Your task to perform on an android device: Go to accessibility settings Image 0: 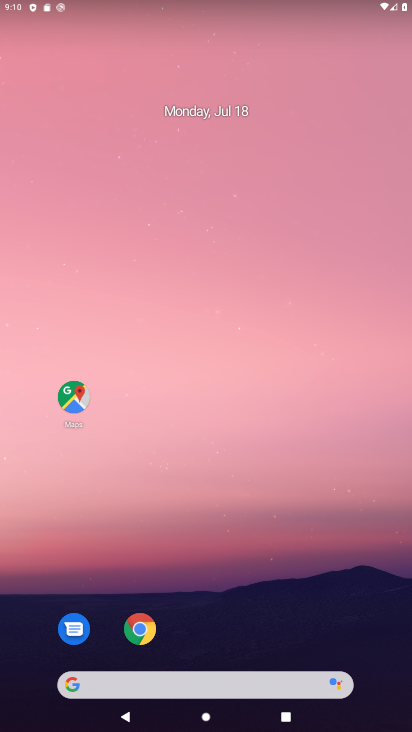
Step 0: drag from (284, 536) to (265, 122)
Your task to perform on an android device: Go to accessibility settings Image 1: 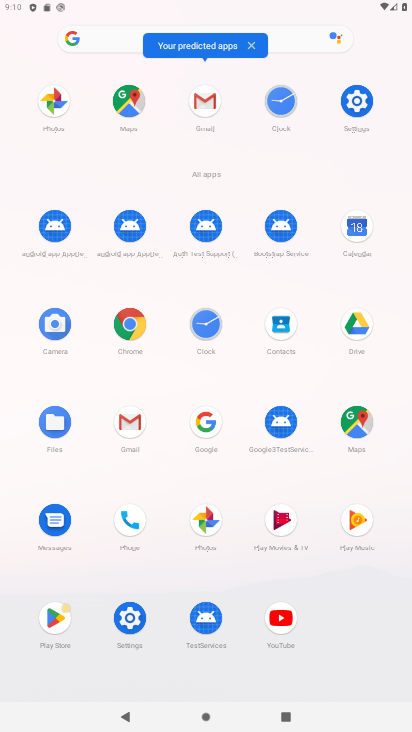
Step 1: click (370, 95)
Your task to perform on an android device: Go to accessibility settings Image 2: 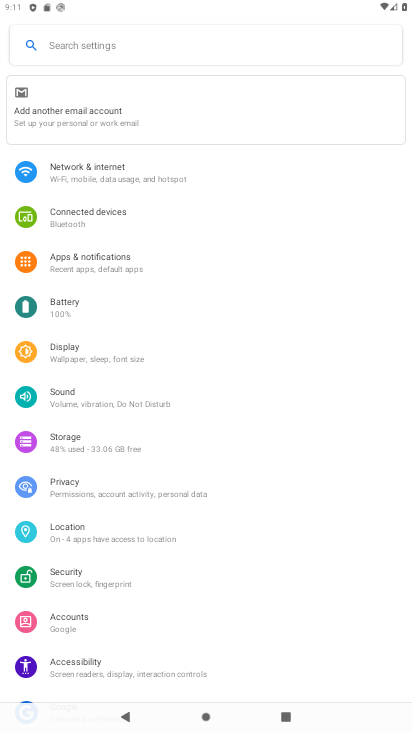
Step 2: click (89, 674)
Your task to perform on an android device: Go to accessibility settings Image 3: 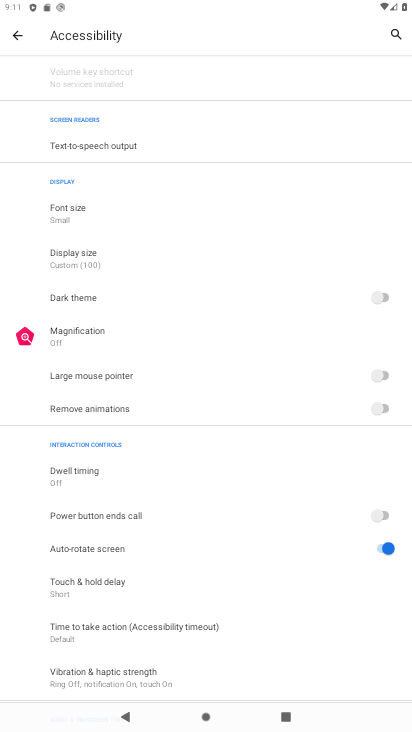
Step 3: task complete